Your task to perform on an android device: Open calendar and show me the second week of next month Image 0: 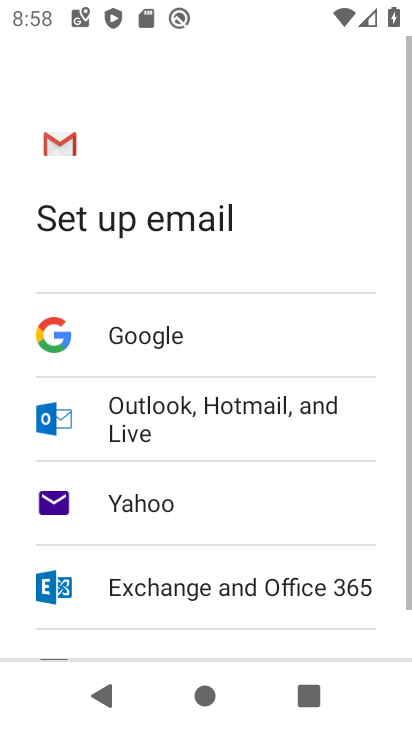
Step 0: drag from (235, 553) to (229, 52)
Your task to perform on an android device: Open calendar and show me the second week of next month Image 1: 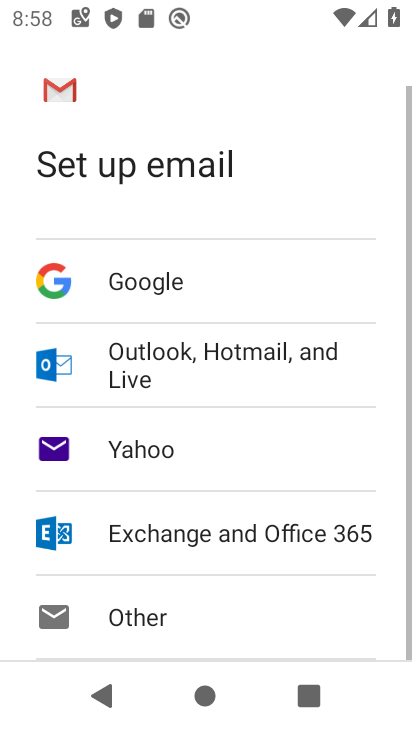
Step 1: press home button
Your task to perform on an android device: Open calendar and show me the second week of next month Image 2: 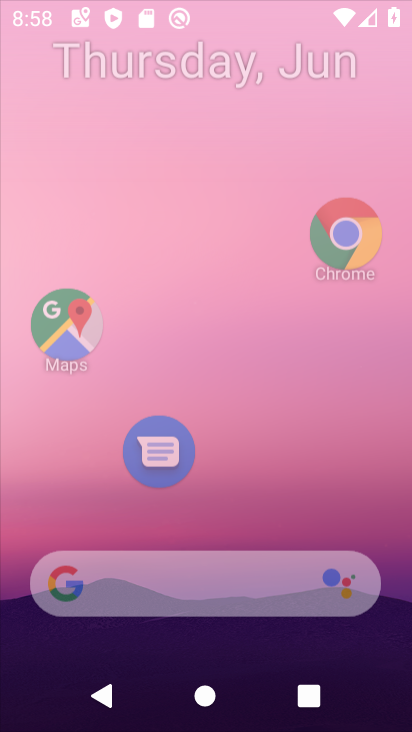
Step 2: drag from (179, 598) to (175, 15)
Your task to perform on an android device: Open calendar and show me the second week of next month Image 3: 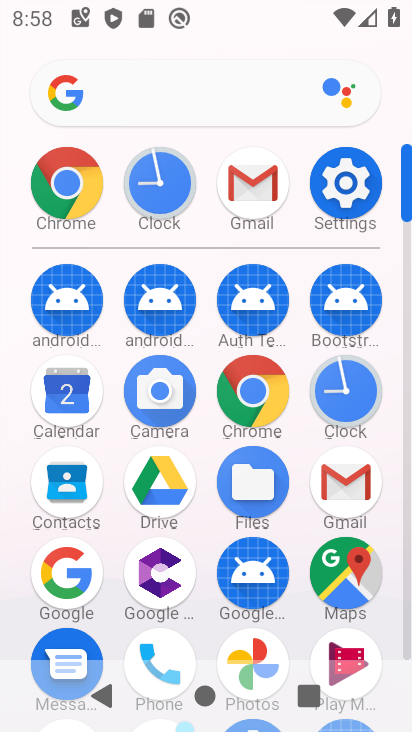
Step 3: drag from (198, 623) to (212, 327)
Your task to perform on an android device: Open calendar and show me the second week of next month Image 4: 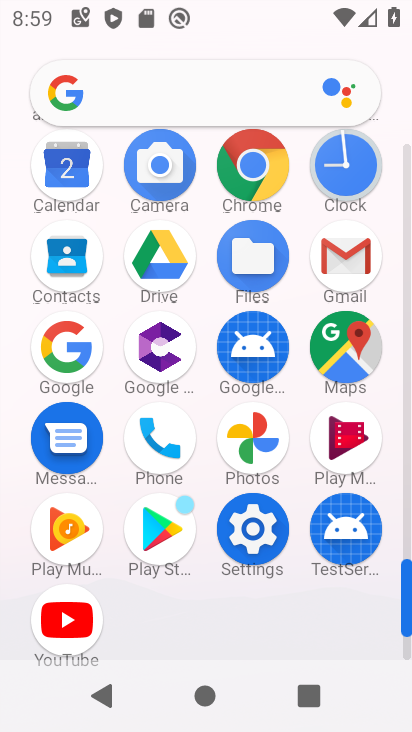
Step 4: click (60, 173)
Your task to perform on an android device: Open calendar and show me the second week of next month Image 5: 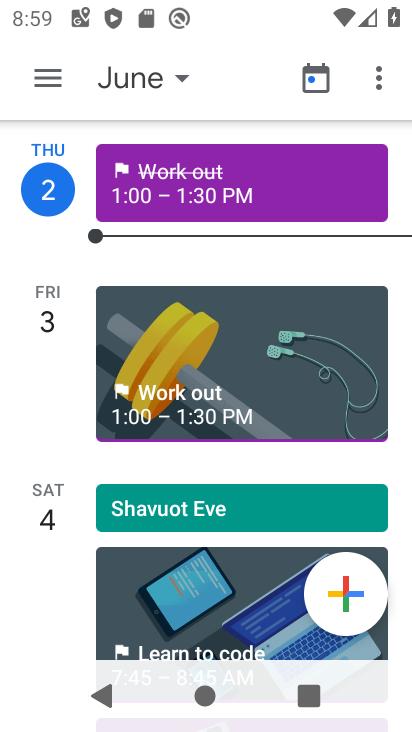
Step 5: drag from (215, 534) to (222, 448)
Your task to perform on an android device: Open calendar and show me the second week of next month Image 6: 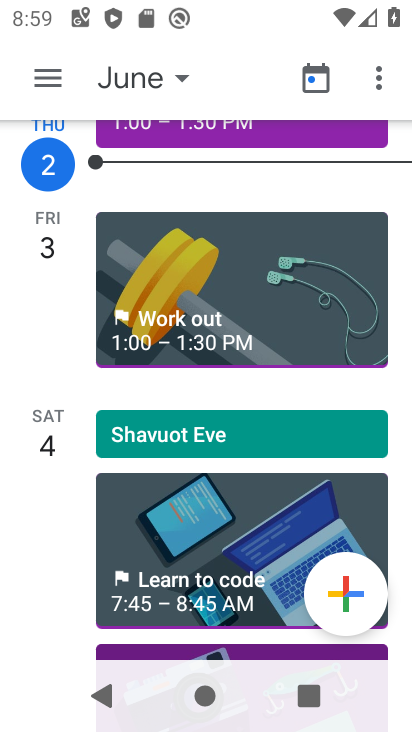
Step 6: click (184, 84)
Your task to perform on an android device: Open calendar and show me the second week of next month Image 7: 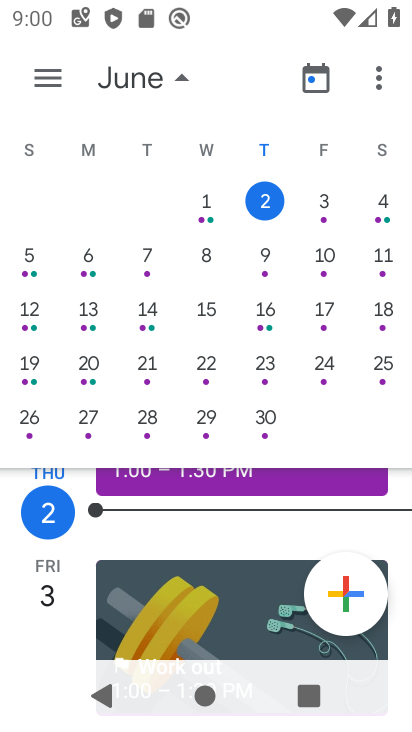
Step 7: drag from (349, 278) to (0, 305)
Your task to perform on an android device: Open calendar and show me the second week of next month Image 8: 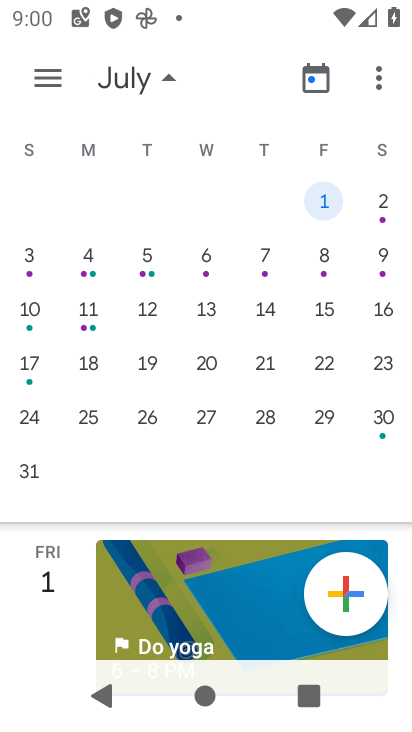
Step 8: click (325, 250)
Your task to perform on an android device: Open calendar and show me the second week of next month Image 9: 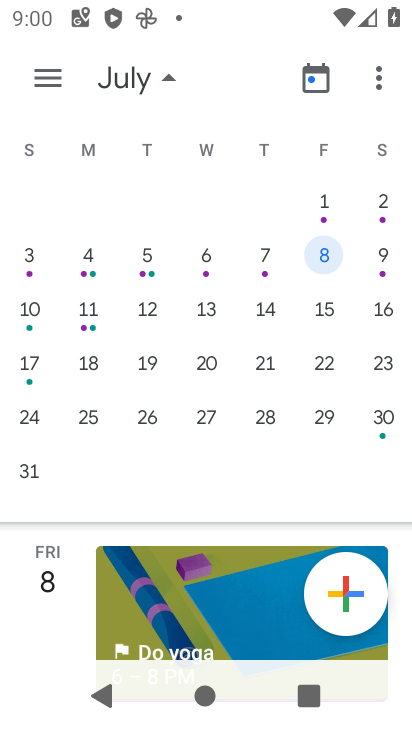
Step 9: task complete